Your task to perform on an android device: toggle data saver in the chrome app Image 0: 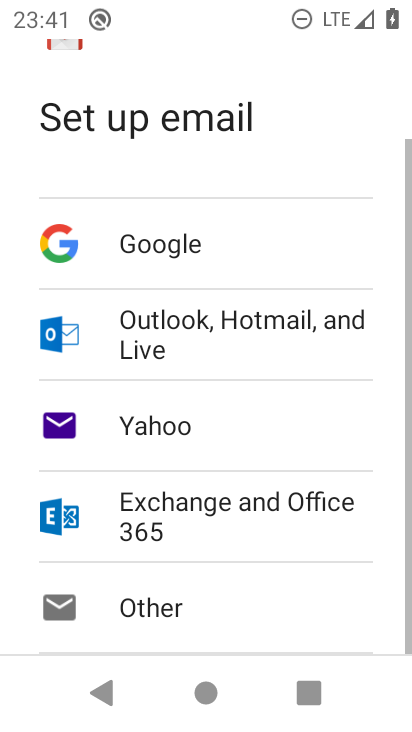
Step 0: drag from (177, 577) to (255, 186)
Your task to perform on an android device: toggle data saver in the chrome app Image 1: 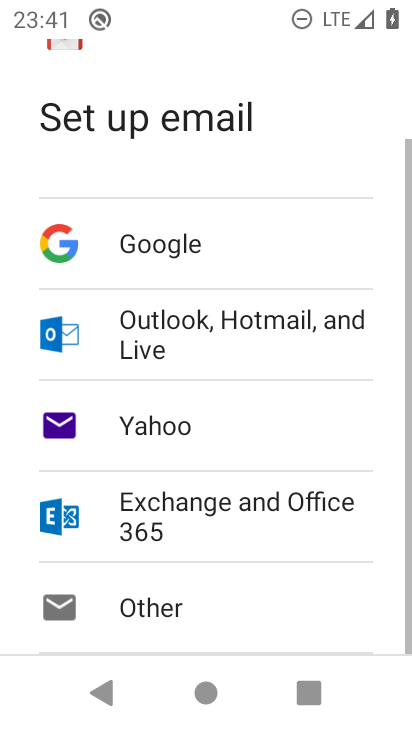
Step 1: press home button
Your task to perform on an android device: toggle data saver in the chrome app Image 2: 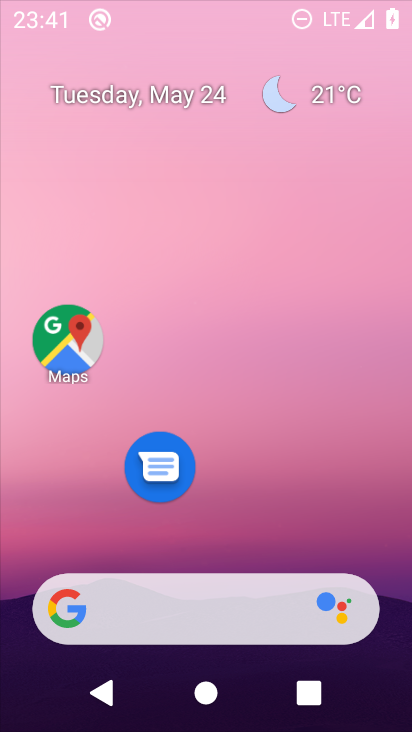
Step 2: drag from (284, 601) to (316, 260)
Your task to perform on an android device: toggle data saver in the chrome app Image 3: 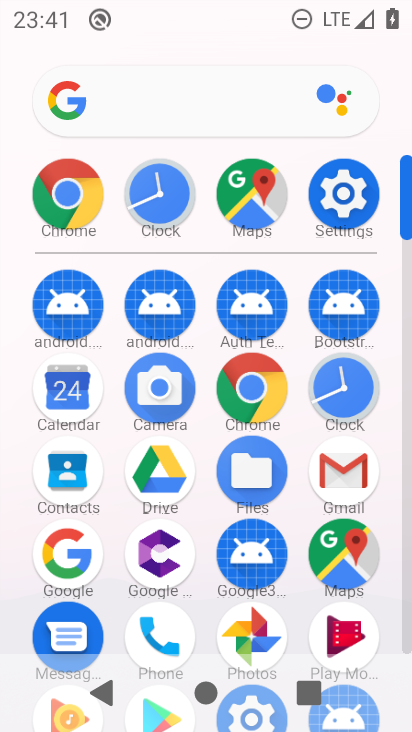
Step 3: click (243, 382)
Your task to perform on an android device: toggle data saver in the chrome app Image 4: 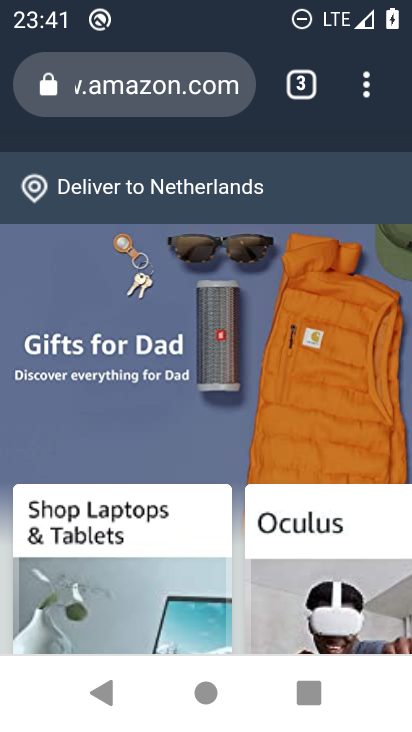
Step 4: click (355, 90)
Your task to perform on an android device: toggle data saver in the chrome app Image 5: 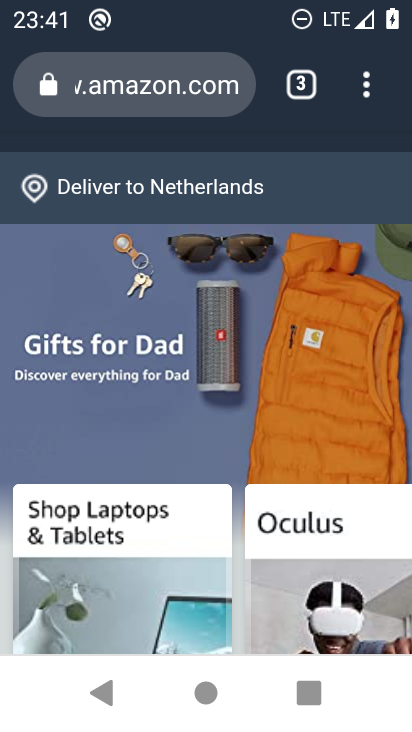
Step 5: click (368, 76)
Your task to perform on an android device: toggle data saver in the chrome app Image 6: 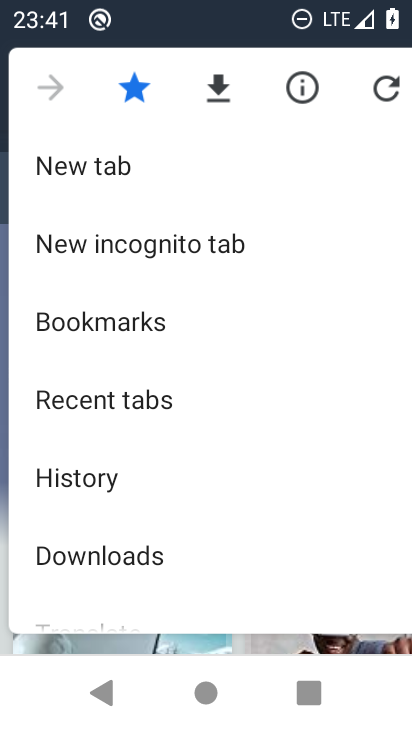
Step 6: drag from (195, 507) to (213, 251)
Your task to perform on an android device: toggle data saver in the chrome app Image 7: 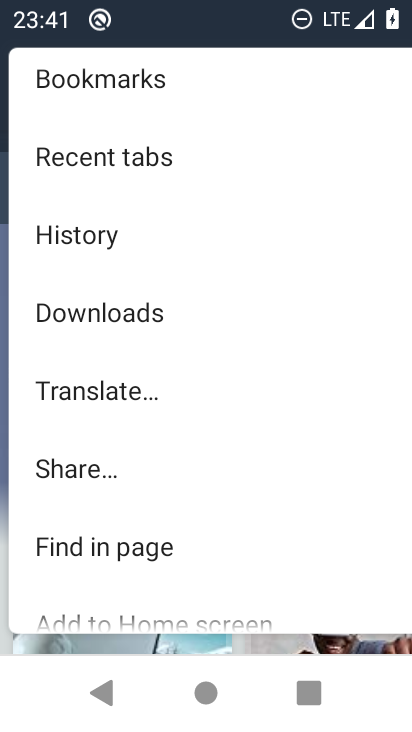
Step 7: drag from (135, 544) to (193, 92)
Your task to perform on an android device: toggle data saver in the chrome app Image 8: 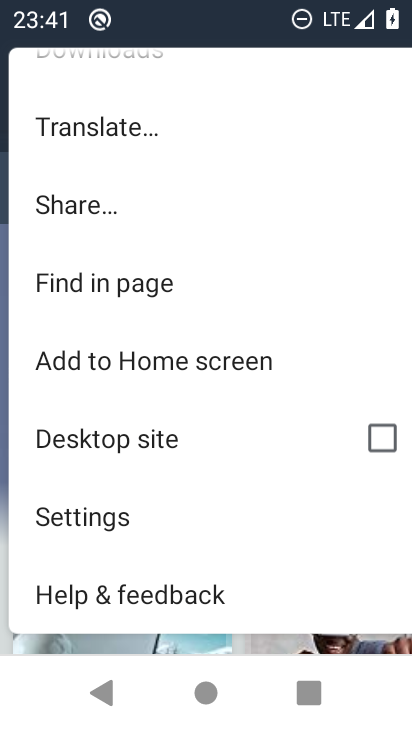
Step 8: click (108, 520)
Your task to perform on an android device: toggle data saver in the chrome app Image 9: 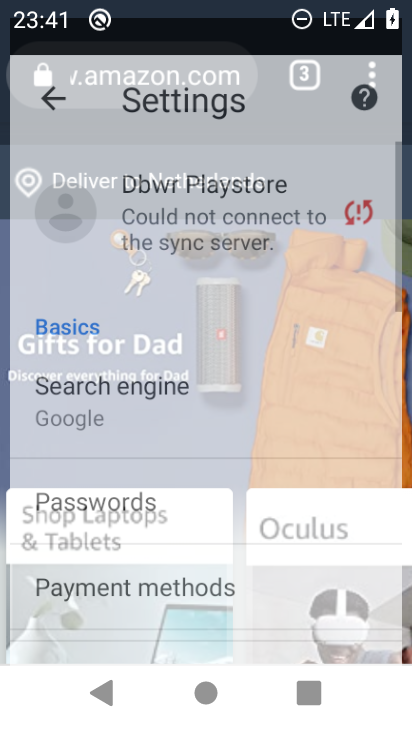
Step 9: drag from (182, 526) to (241, 51)
Your task to perform on an android device: toggle data saver in the chrome app Image 10: 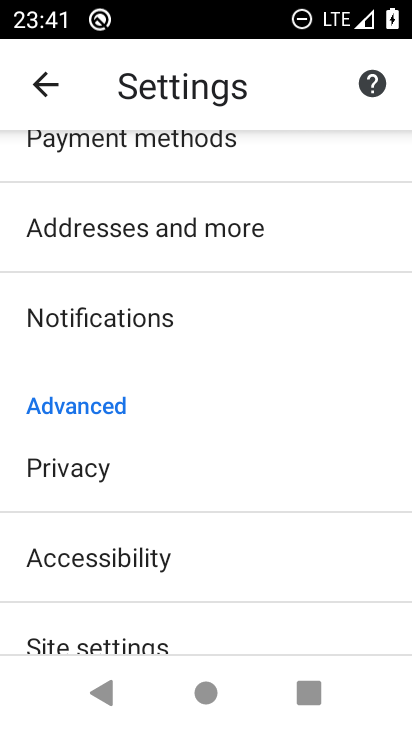
Step 10: drag from (196, 582) to (268, 145)
Your task to perform on an android device: toggle data saver in the chrome app Image 11: 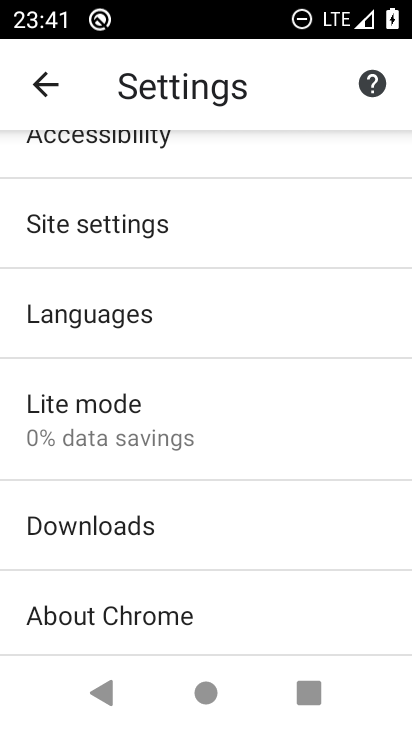
Step 11: click (150, 401)
Your task to perform on an android device: toggle data saver in the chrome app Image 12: 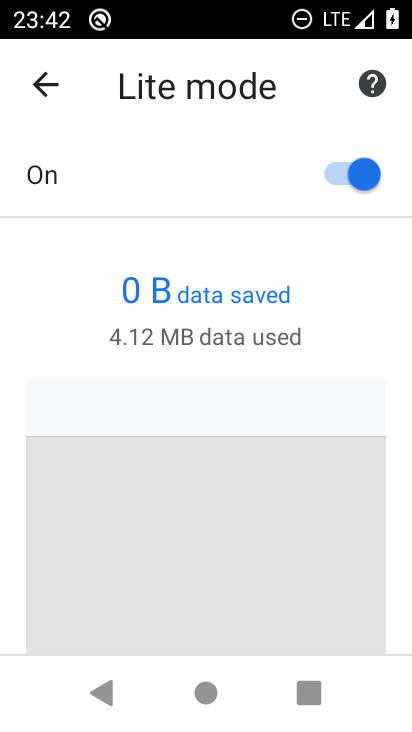
Step 12: task complete